Your task to perform on an android device: change notification settings in the gmail app Image 0: 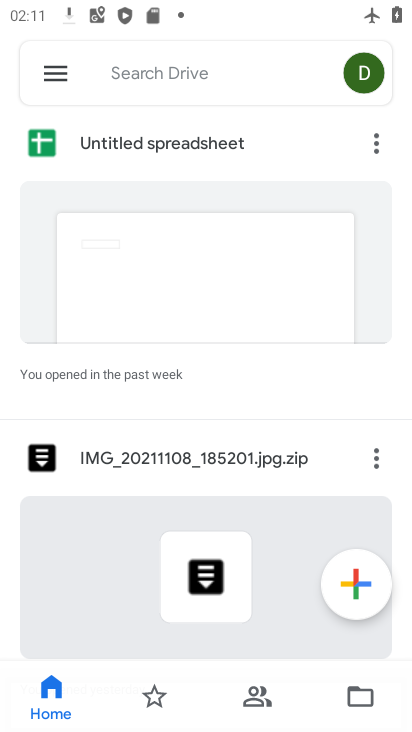
Step 0: press home button
Your task to perform on an android device: change notification settings in the gmail app Image 1: 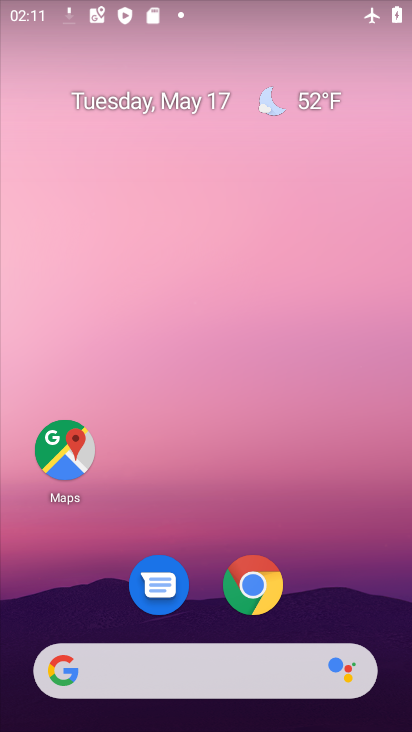
Step 1: drag from (194, 491) to (241, 76)
Your task to perform on an android device: change notification settings in the gmail app Image 2: 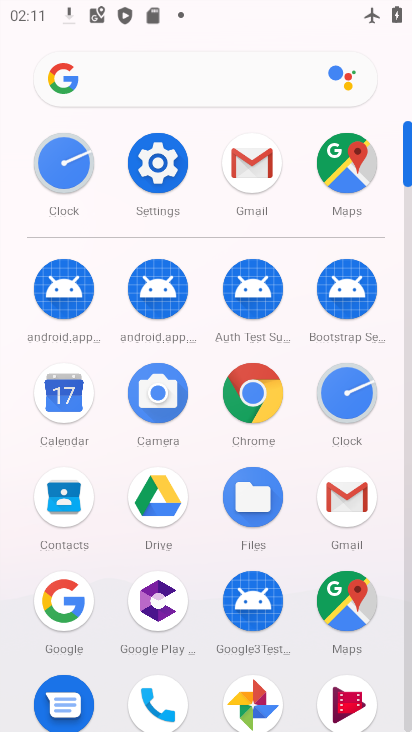
Step 2: click (244, 168)
Your task to perform on an android device: change notification settings in the gmail app Image 3: 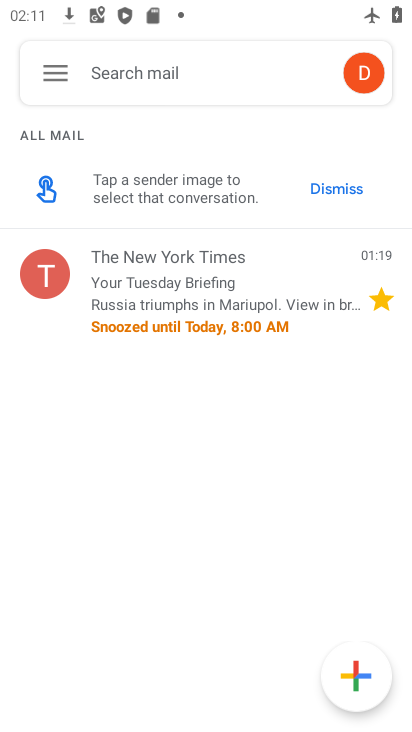
Step 3: click (53, 72)
Your task to perform on an android device: change notification settings in the gmail app Image 4: 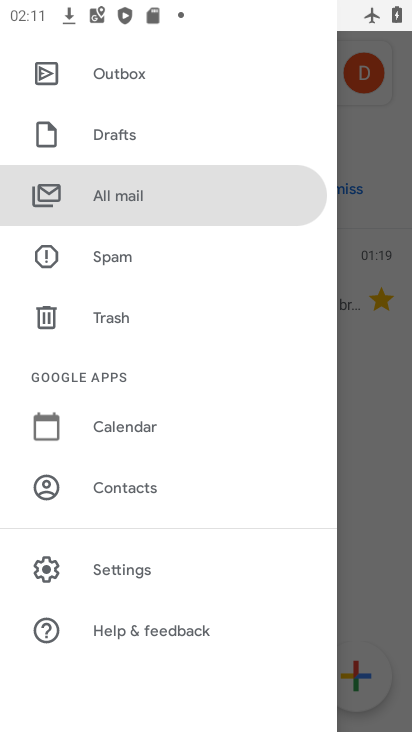
Step 4: click (126, 569)
Your task to perform on an android device: change notification settings in the gmail app Image 5: 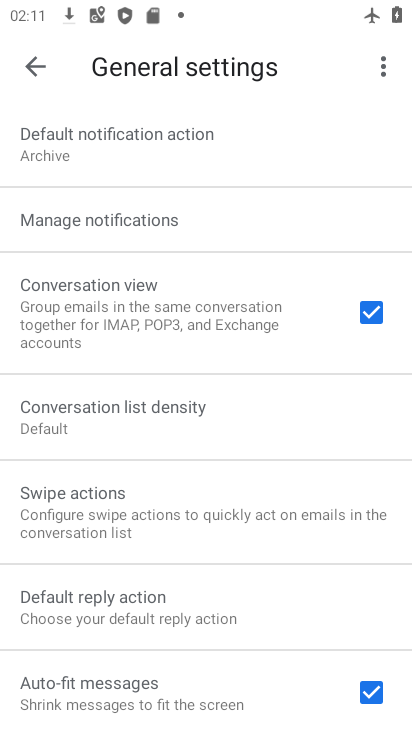
Step 5: click (221, 225)
Your task to perform on an android device: change notification settings in the gmail app Image 6: 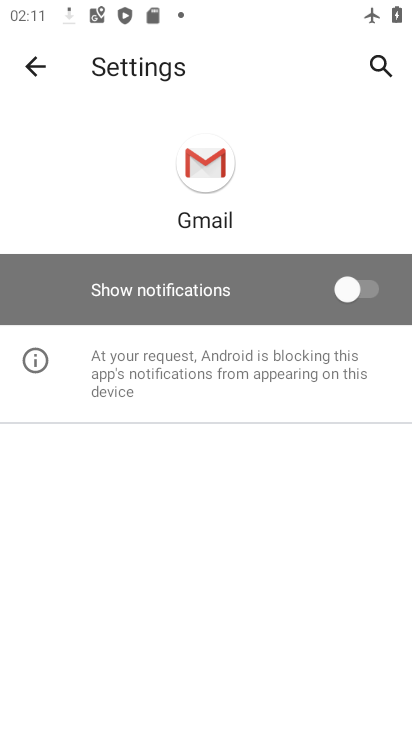
Step 6: click (361, 282)
Your task to perform on an android device: change notification settings in the gmail app Image 7: 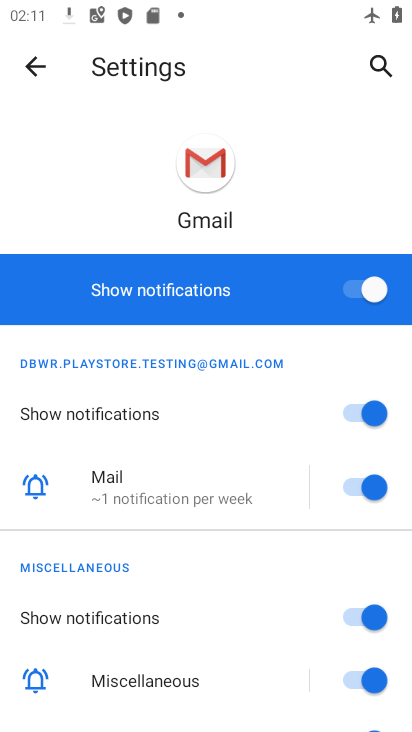
Step 7: task complete